Your task to perform on an android device: Add amazon basics triple a to the cart on costco Image 0: 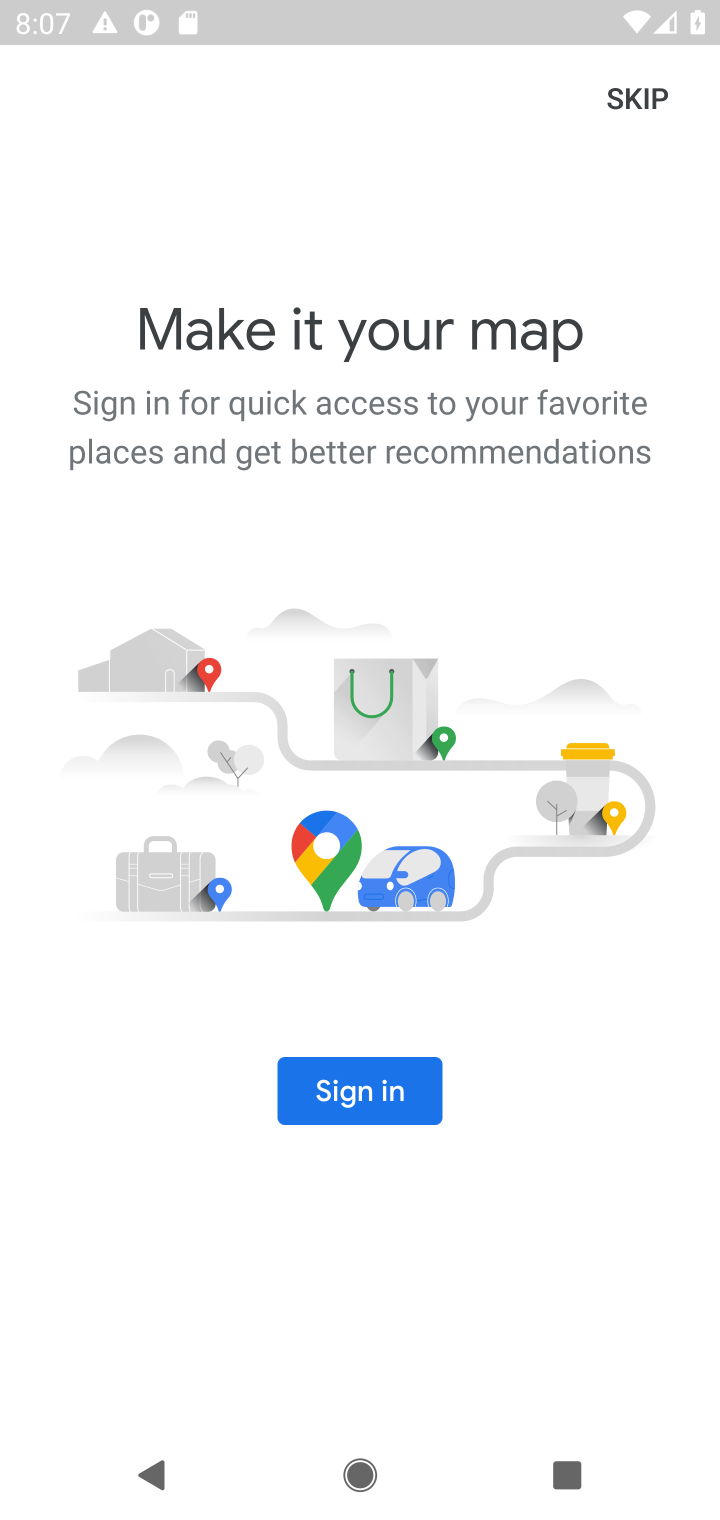
Step 0: press home button
Your task to perform on an android device: Add amazon basics triple a to the cart on costco Image 1: 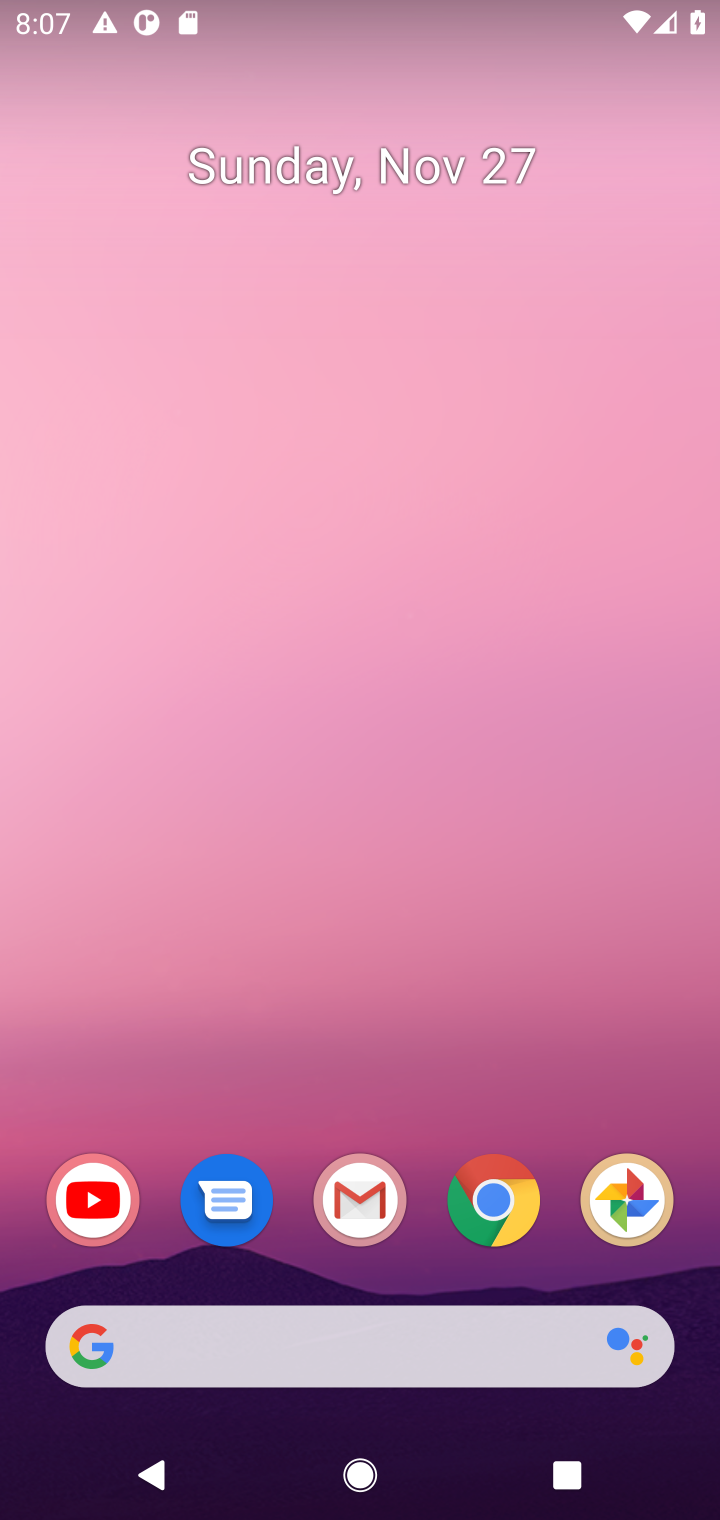
Step 1: click (501, 1229)
Your task to perform on an android device: Add amazon basics triple a to the cart on costco Image 2: 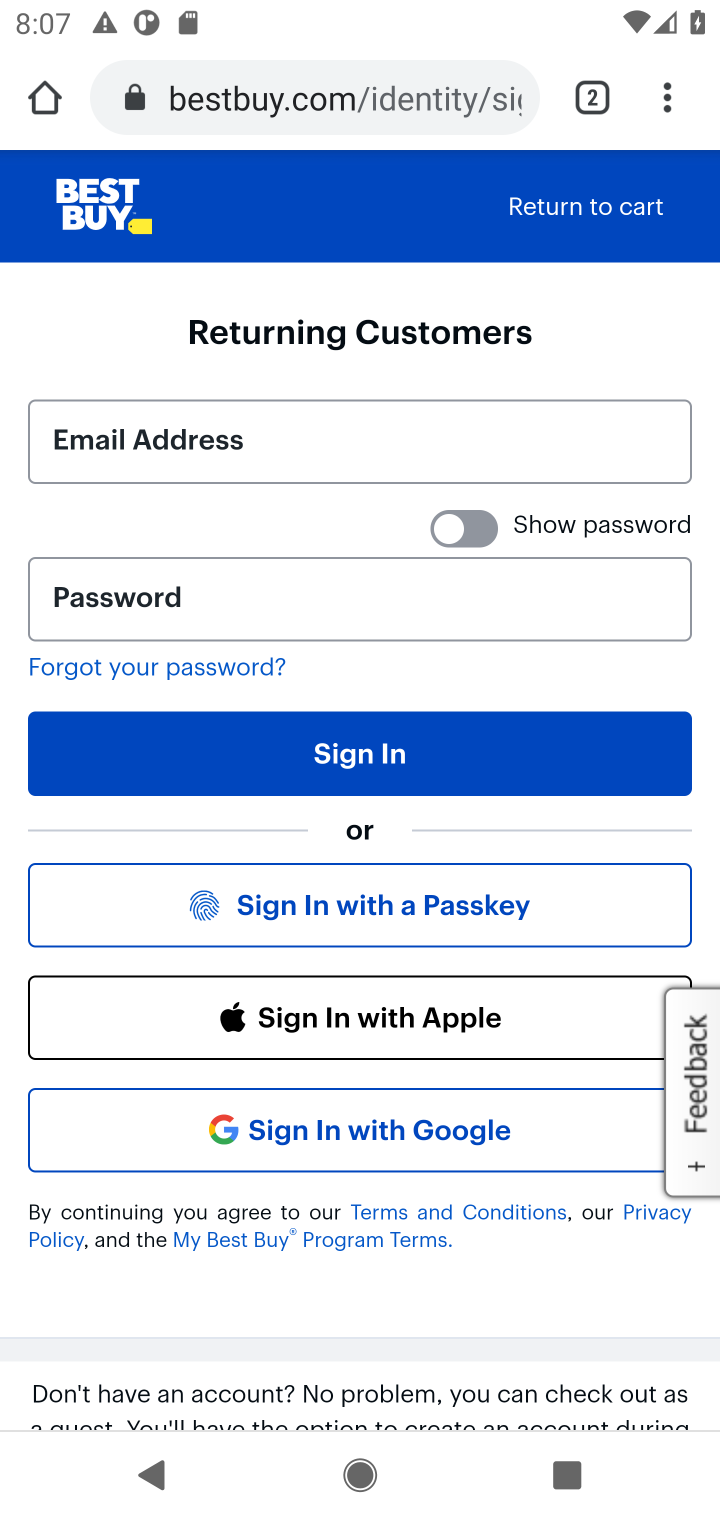
Step 2: click (314, 101)
Your task to perform on an android device: Add amazon basics triple a to the cart on costco Image 3: 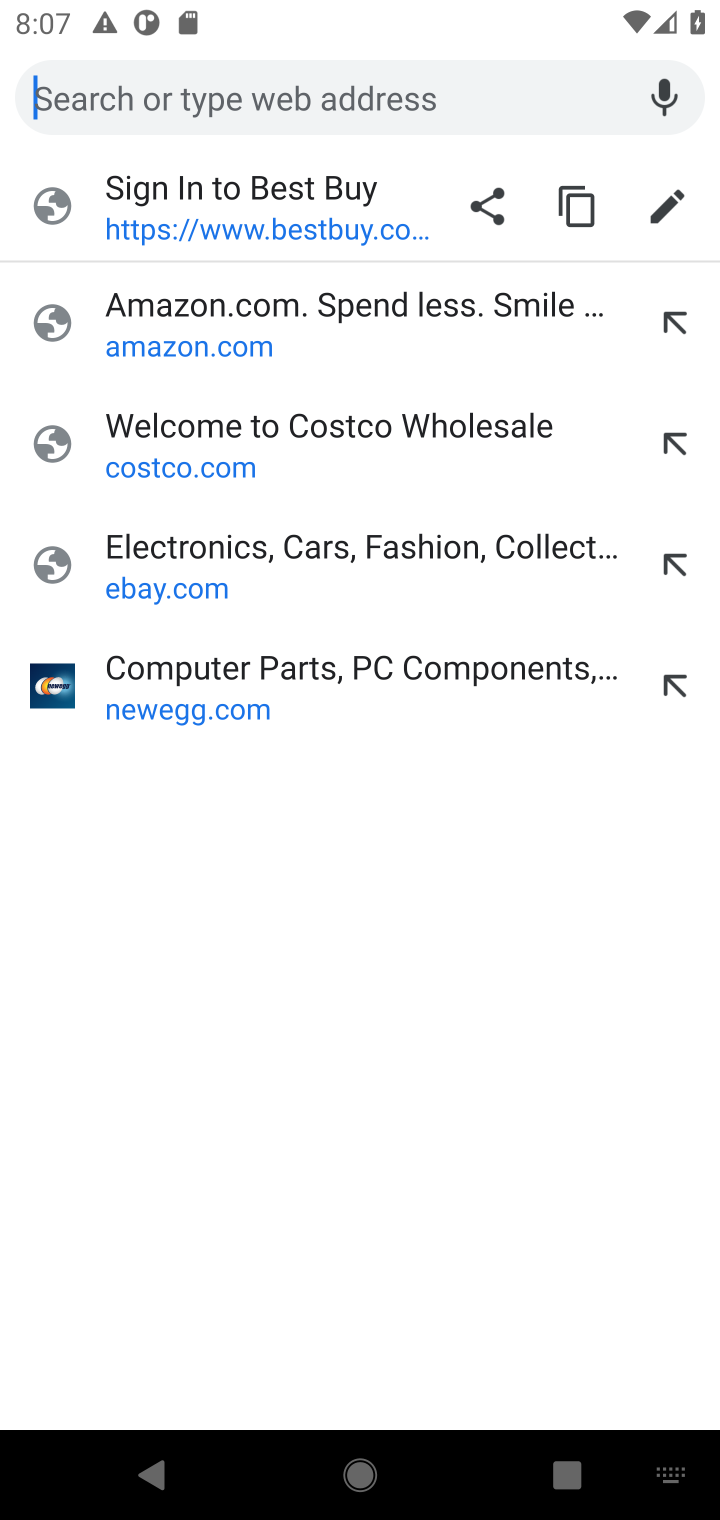
Step 3: click (195, 452)
Your task to perform on an android device: Add amazon basics triple a to the cart on costco Image 4: 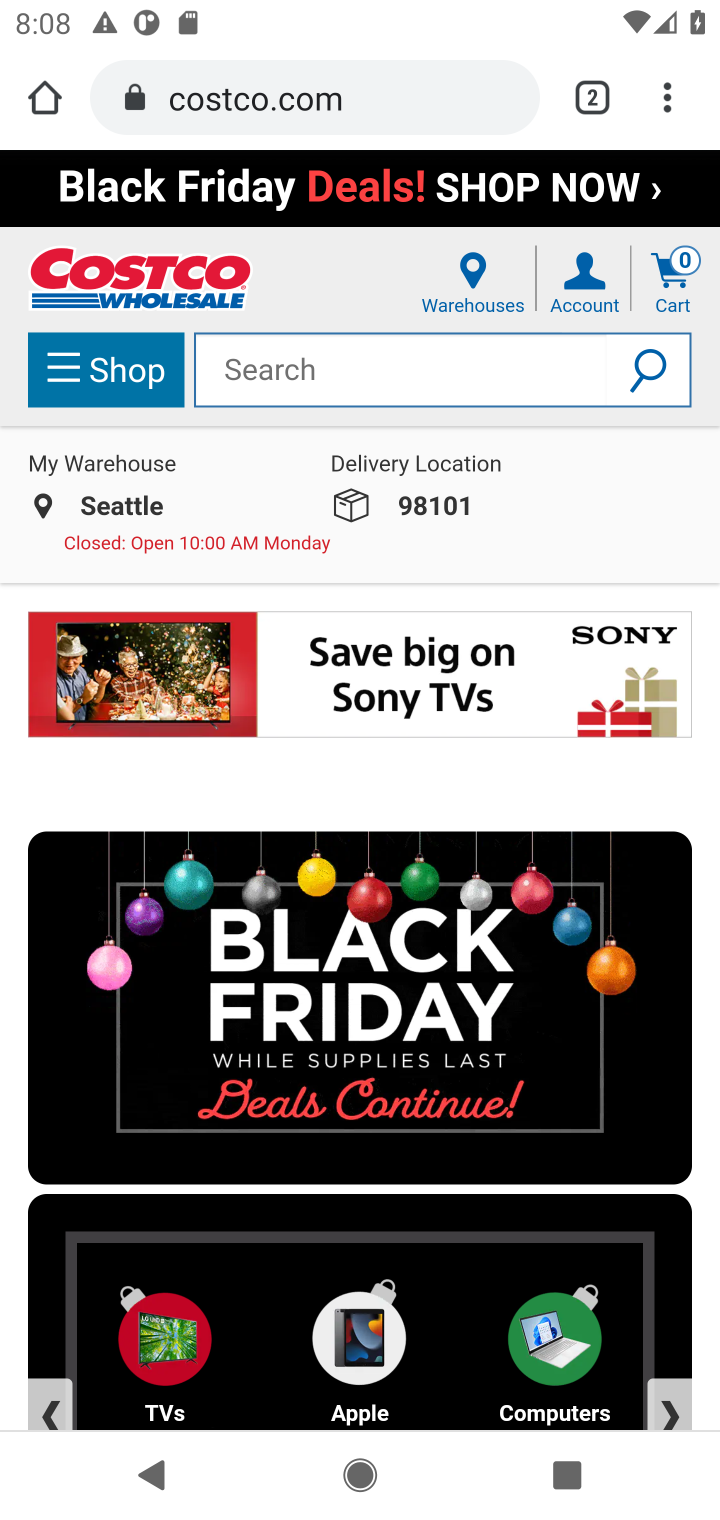
Step 4: click (347, 377)
Your task to perform on an android device: Add amazon basics triple a to the cart on costco Image 5: 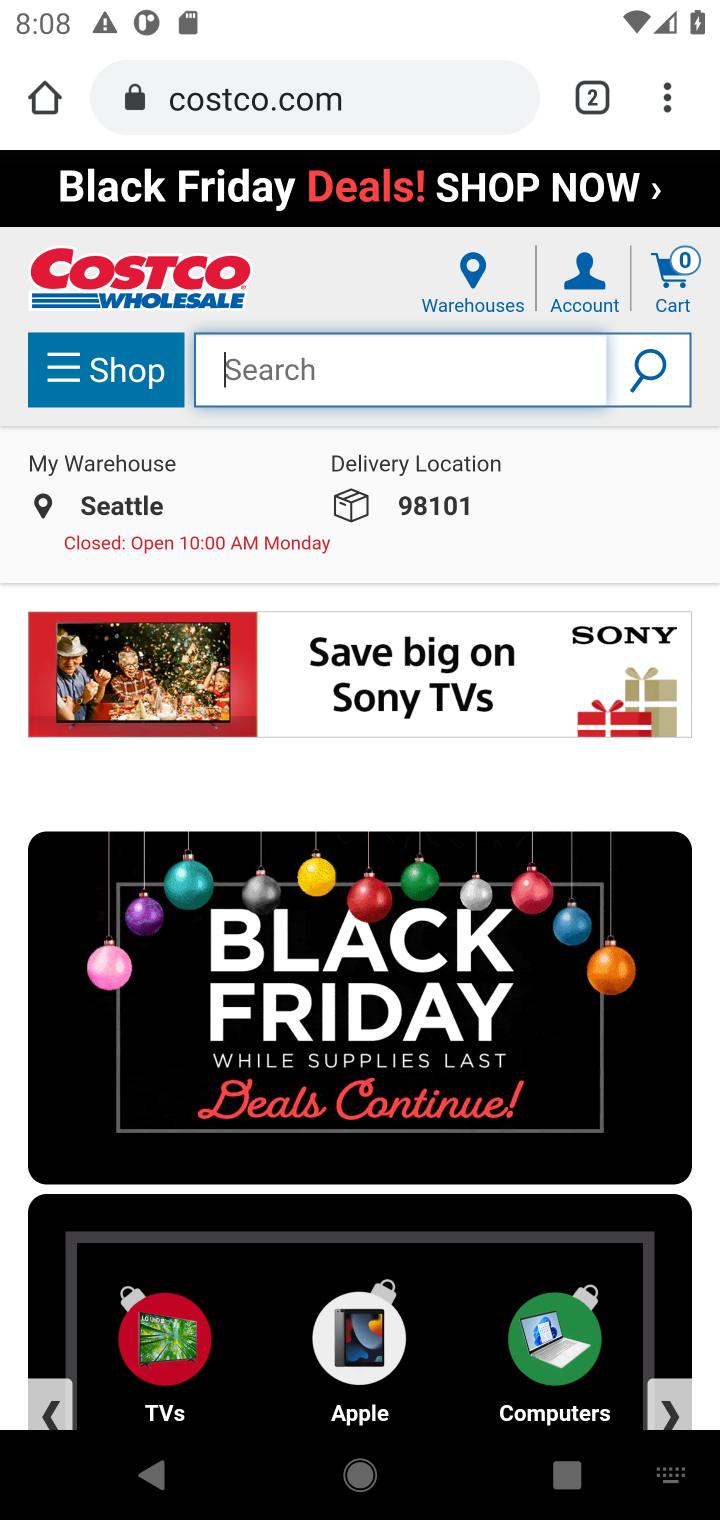
Step 5: type "amazon basics triple a"
Your task to perform on an android device: Add amazon basics triple a to the cart on costco Image 6: 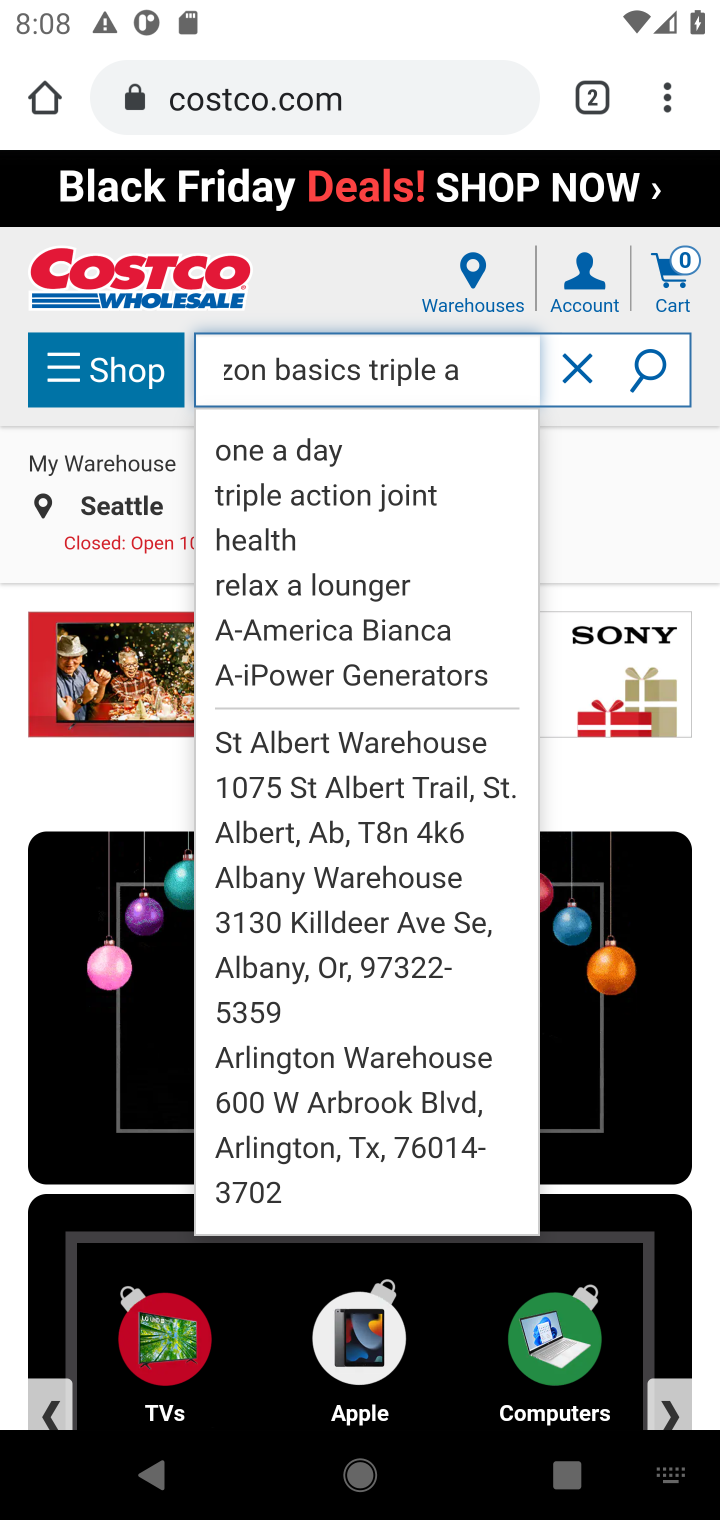
Step 6: click (645, 372)
Your task to perform on an android device: Add amazon basics triple a to the cart on costco Image 7: 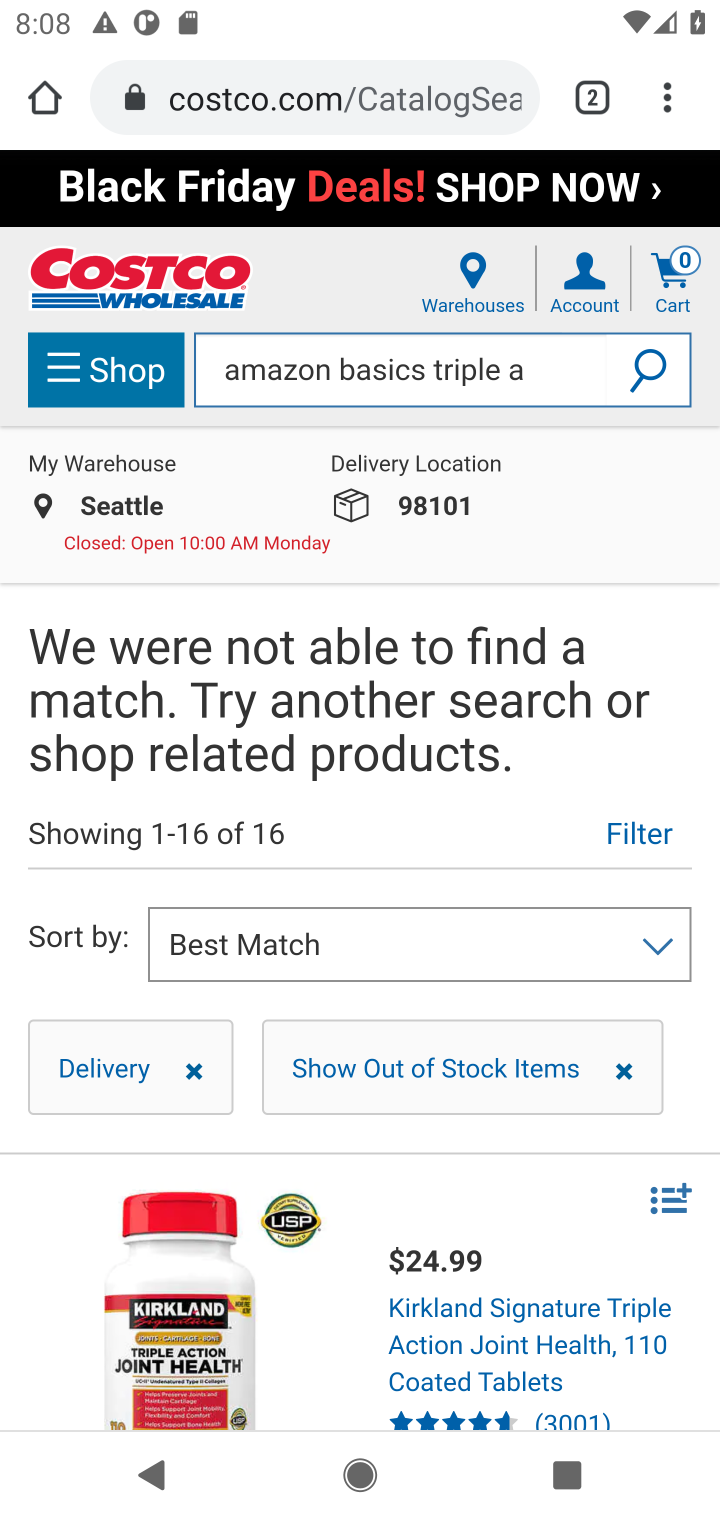
Step 7: task complete